Your task to perform on an android device: toggle show notifications on the lock screen Image 0: 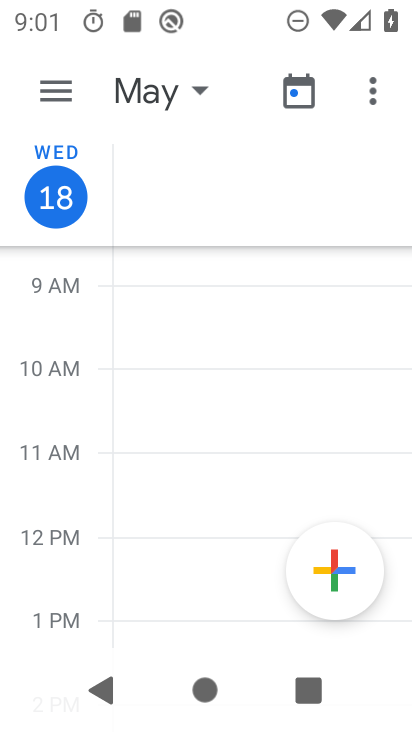
Step 0: press home button
Your task to perform on an android device: toggle show notifications on the lock screen Image 1: 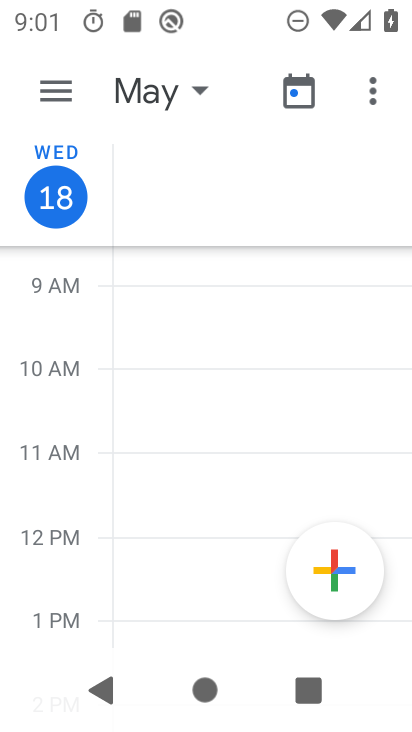
Step 1: press home button
Your task to perform on an android device: toggle show notifications on the lock screen Image 2: 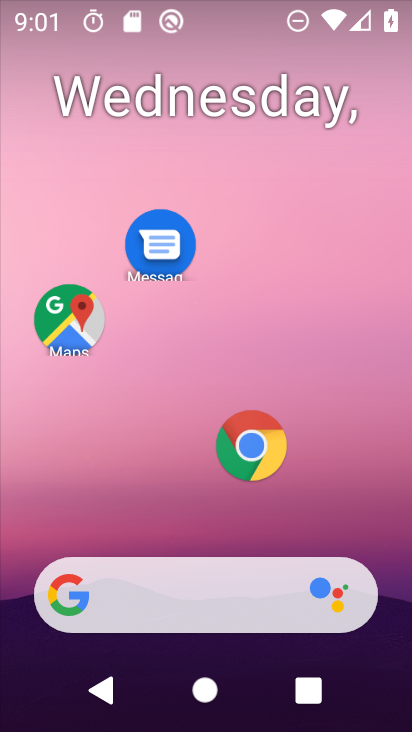
Step 2: drag from (202, 532) to (233, 74)
Your task to perform on an android device: toggle show notifications on the lock screen Image 3: 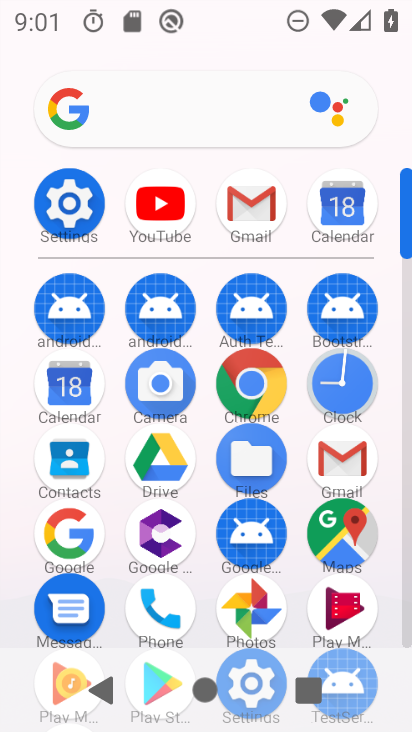
Step 3: click (64, 199)
Your task to perform on an android device: toggle show notifications on the lock screen Image 4: 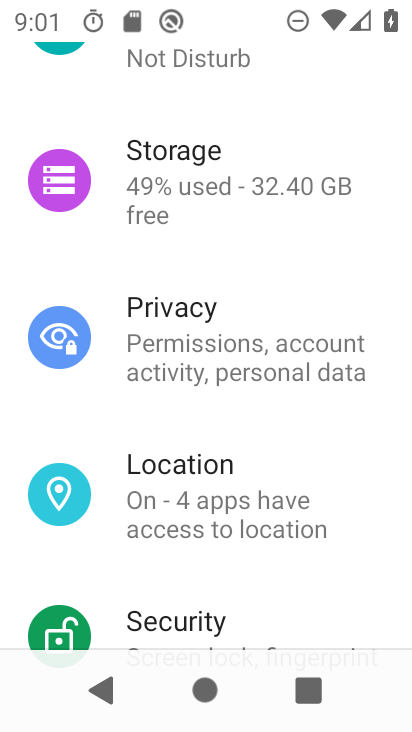
Step 4: drag from (142, 119) to (143, 615)
Your task to perform on an android device: toggle show notifications on the lock screen Image 5: 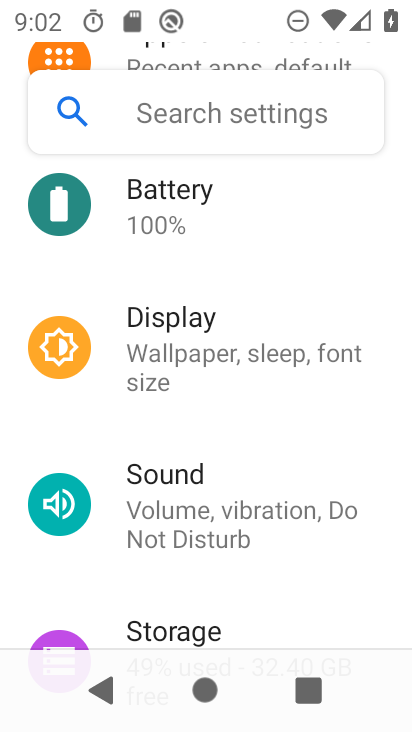
Step 5: drag from (164, 257) to (167, 605)
Your task to perform on an android device: toggle show notifications on the lock screen Image 6: 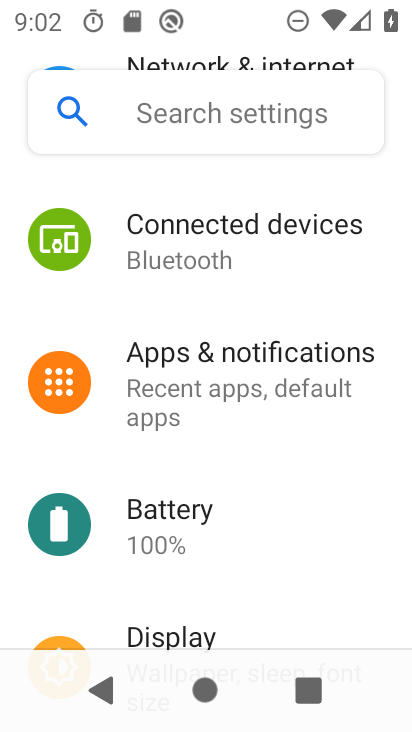
Step 6: click (107, 367)
Your task to perform on an android device: toggle show notifications on the lock screen Image 7: 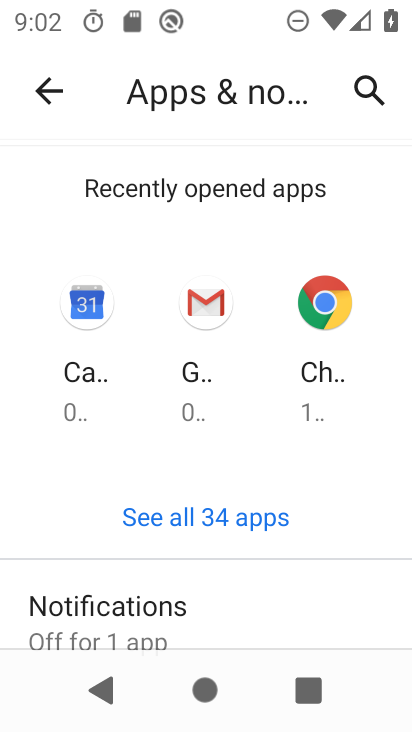
Step 7: click (203, 606)
Your task to perform on an android device: toggle show notifications on the lock screen Image 8: 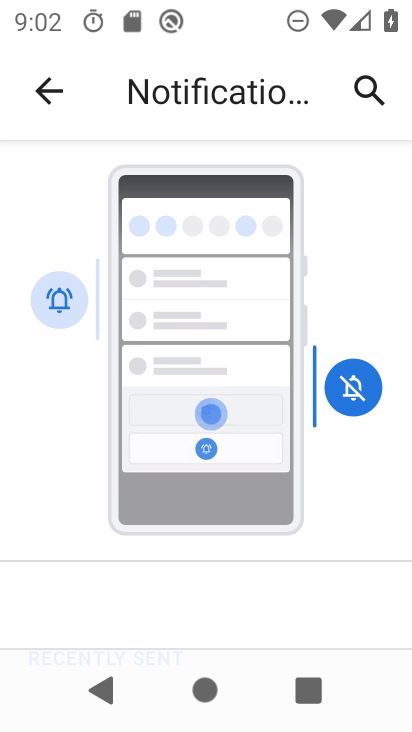
Step 8: drag from (202, 593) to (195, 152)
Your task to perform on an android device: toggle show notifications on the lock screen Image 9: 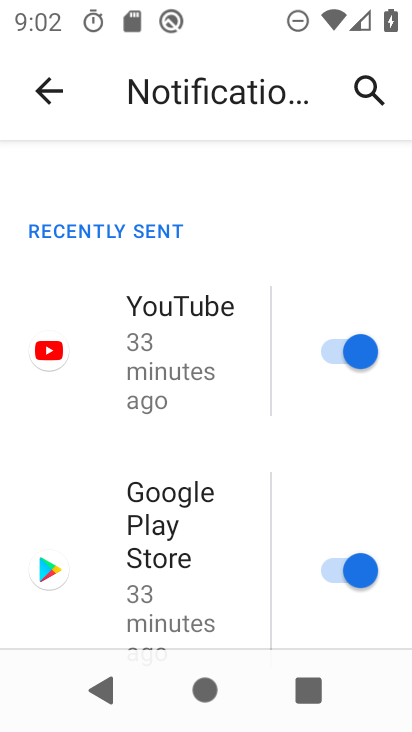
Step 9: drag from (212, 590) to (208, 145)
Your task to perform on an android device: toggle show notifications on the lock screen Image 10: 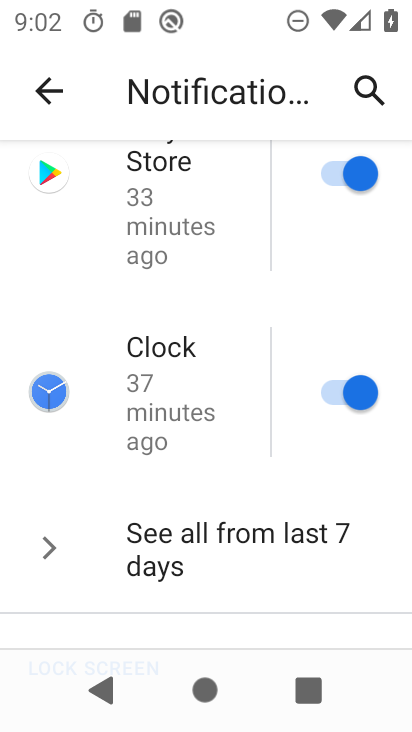
Step 10: drag from (236, 590) to (234, 126)
Your task to perform on an android device: toggle show notifications on the lock screen Image 11: 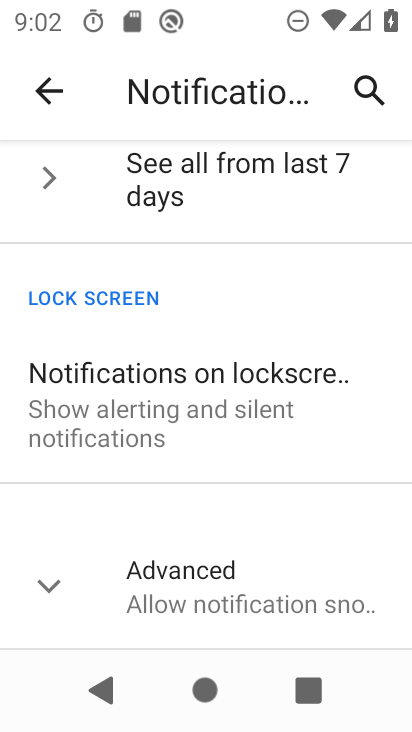
Step 11: click (203, 428)
Your task to perform on an android device: toggle show notifications on the lock screen Image 12: 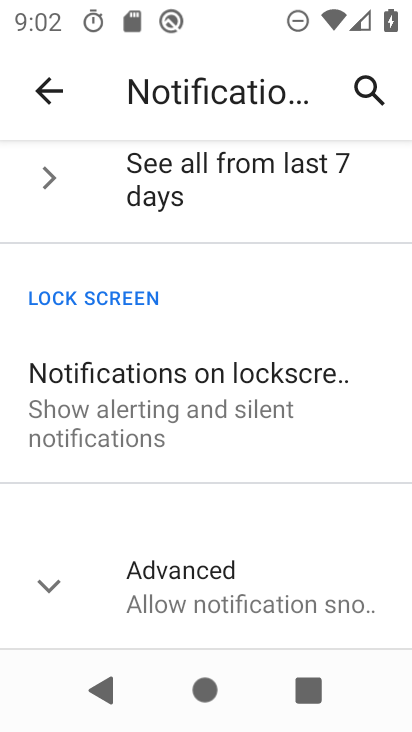
Step 12: click (203, 428)
Your task to perform on an android device: toggle show notifications on the lock screen Image 13: 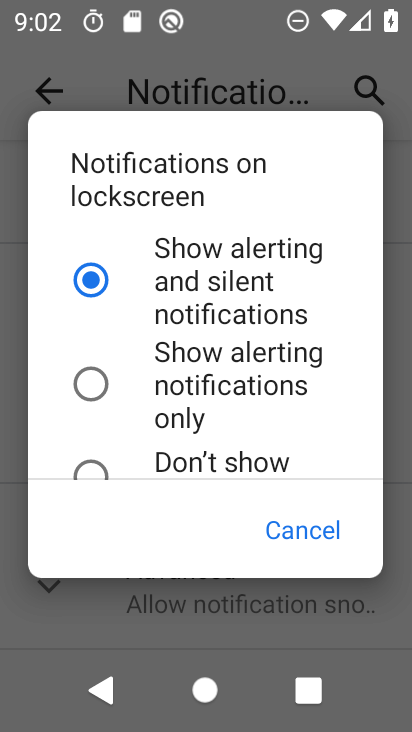
Step 13: click (82, 384)
Your task to perform on an android device: toggle show notifications on the lock screen Image 14: 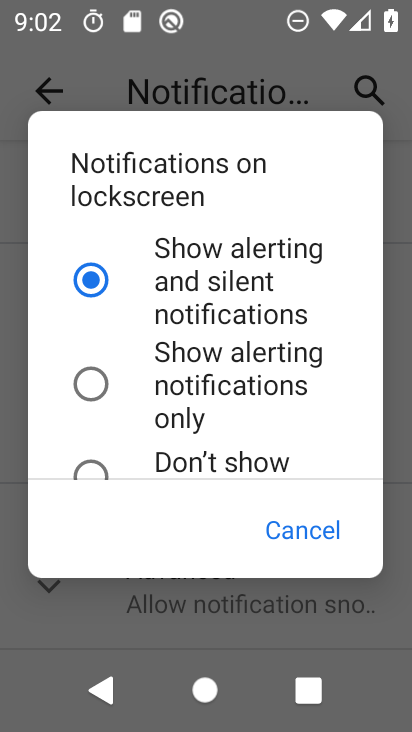
Step 14: click (93, 379)
Your task to perform on an android device: toggle show notifications on the lock screen Image 15: 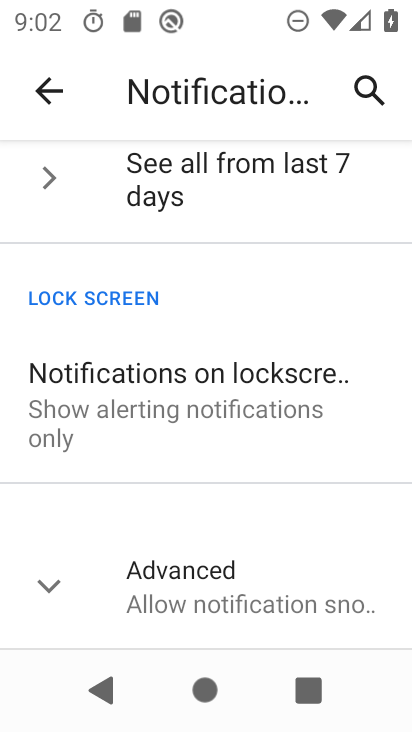
Step 15: task complete